Your task to perform on an android device: allow cookies in the chrome app Image 0: 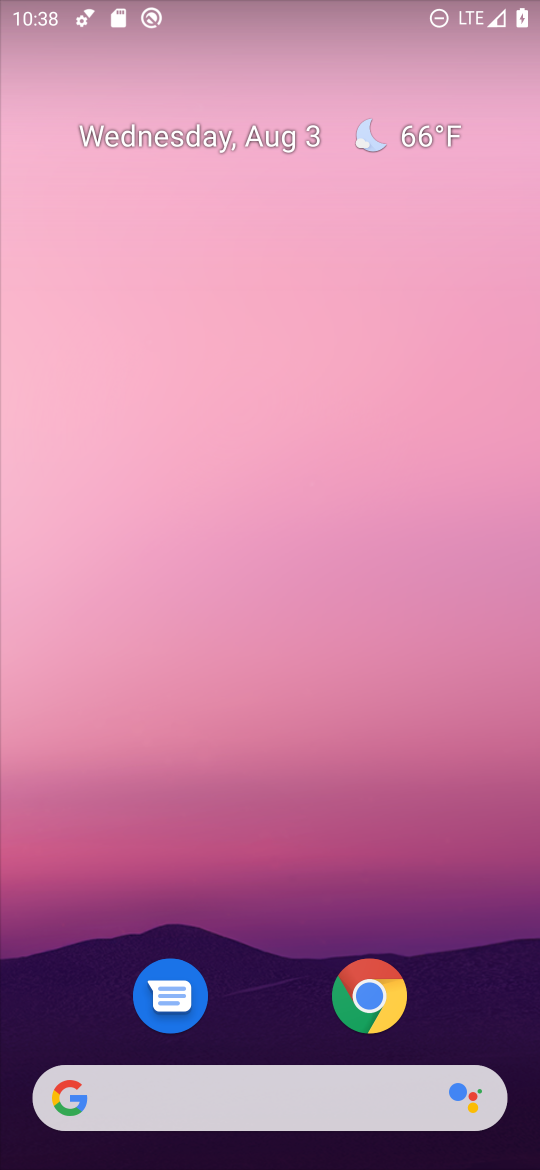
Step 0: click (380, 982)
Your task to perform on an android device: allow cookies in the chrome app Image 1: 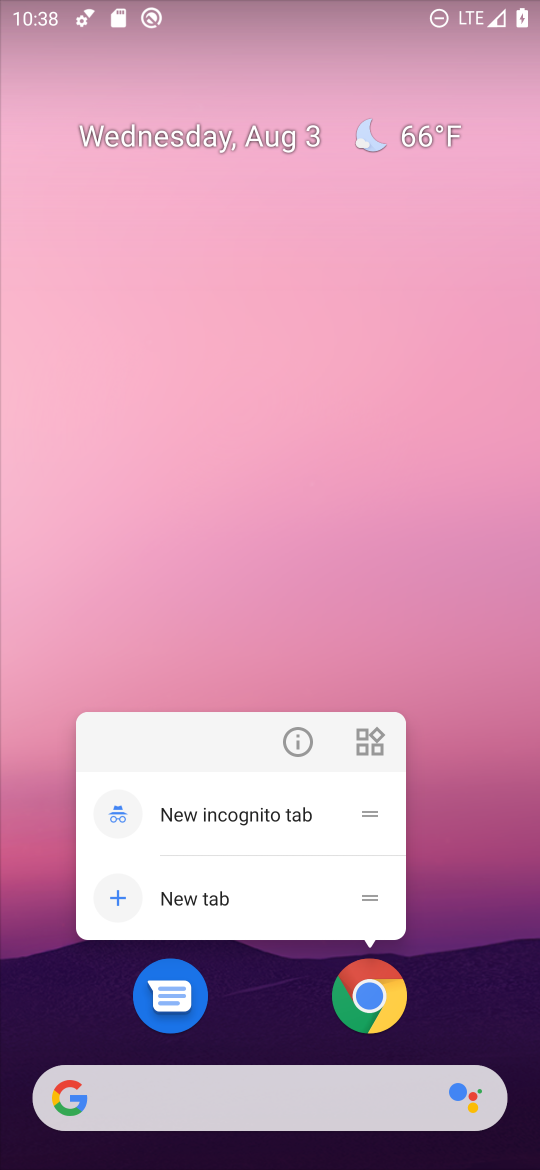
Step 1: click (380, 982)
Your task to perform on an android device: allow cookies in the chrome app Image 2: 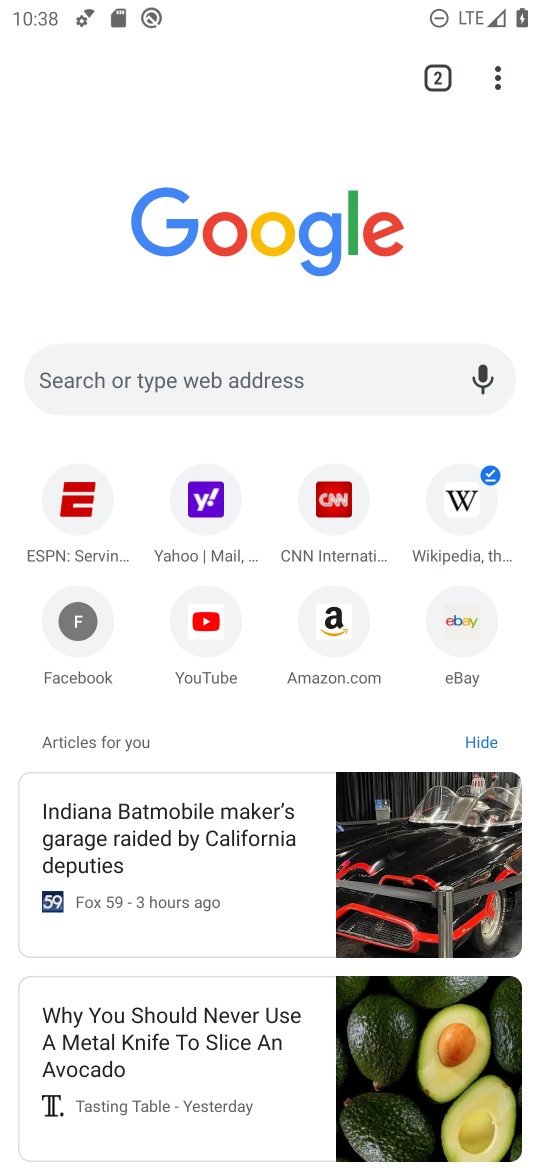
Step 2: click (492, 87)
Your task to perform on an android device: allow cookies in the chrome app Image 3: 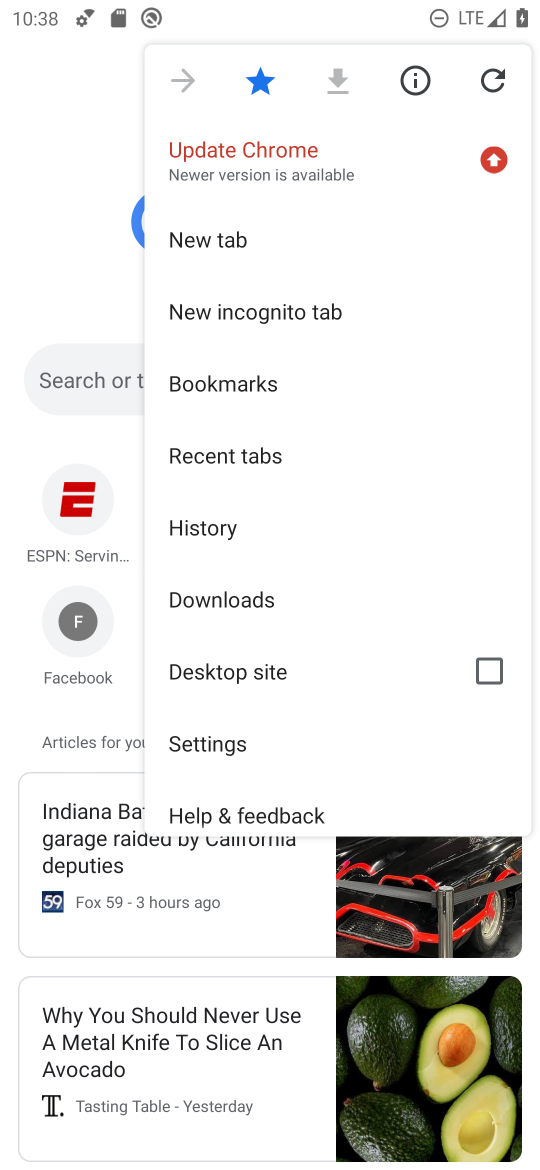
Step 3: click (214, 738)
Your task to perform on an android device: allow cookies in the chrome app Image 4: 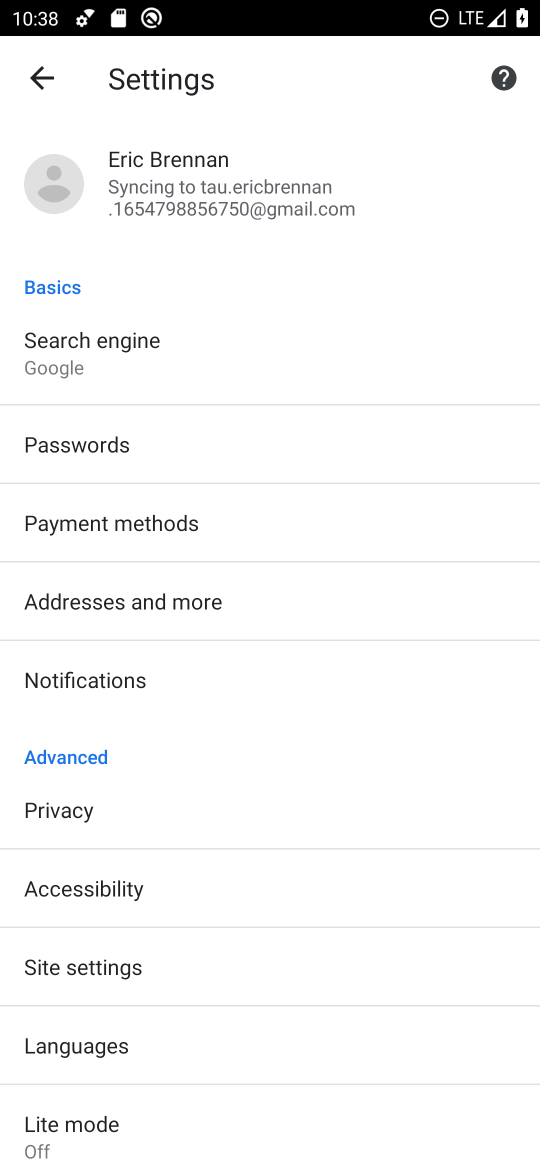
Step 4: click (83, 966)
Your task to perform on an android device: allow cookies in the chrome app Image 5: 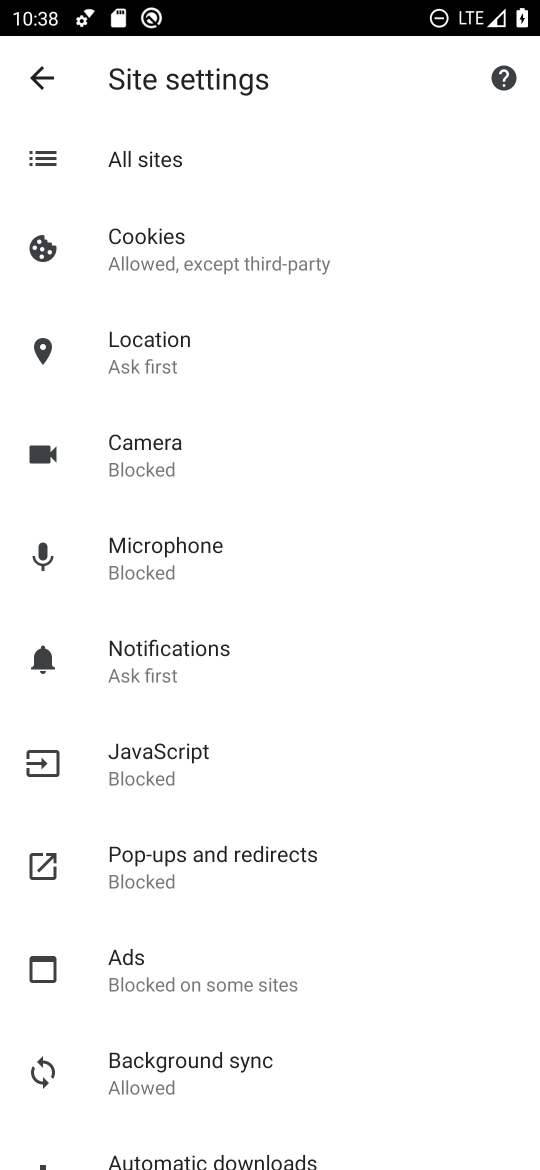
Step 5: click (291, 249)
Your task to perform on an android device: allow cookies in the chrome app Image 6: 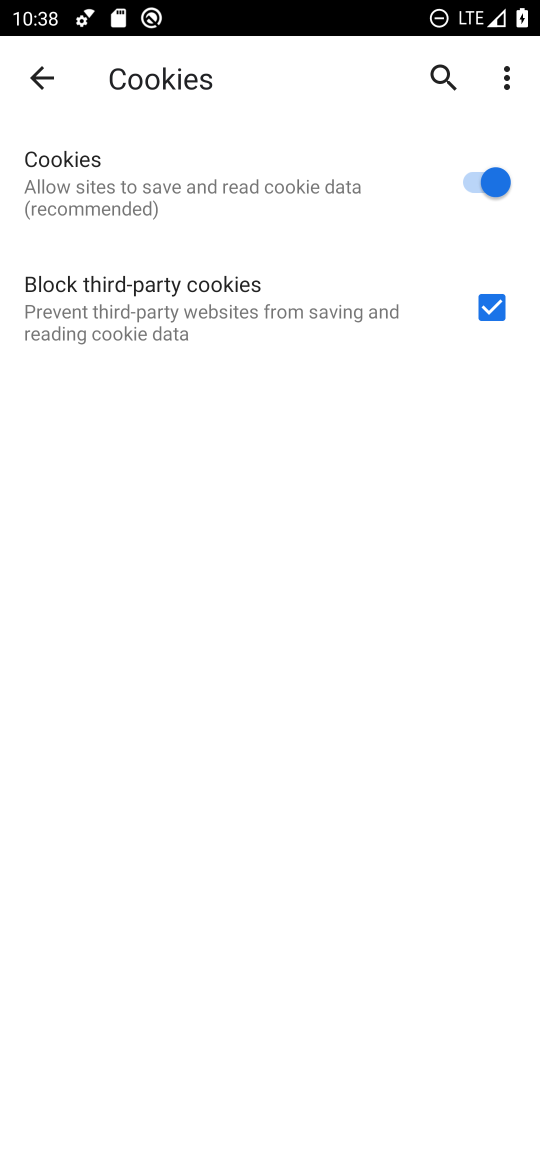
Step 6: task complete